Your task to perform on an android device: What's the weather today? Image 0: 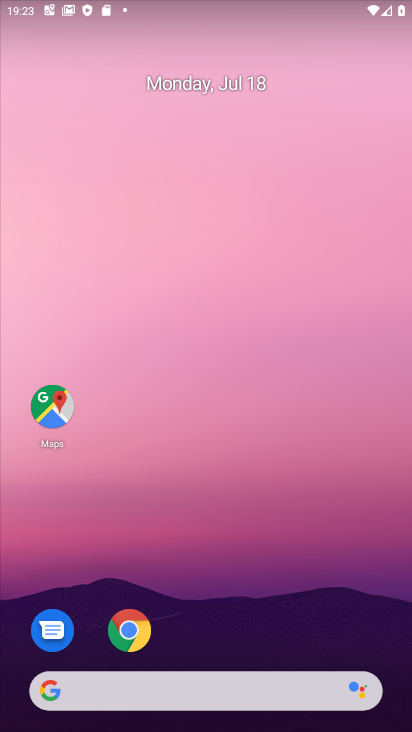
Step 0: drag from (229, 408) to (13, 15)
Your task to perform on an android device: What's the weather today? Image 1: 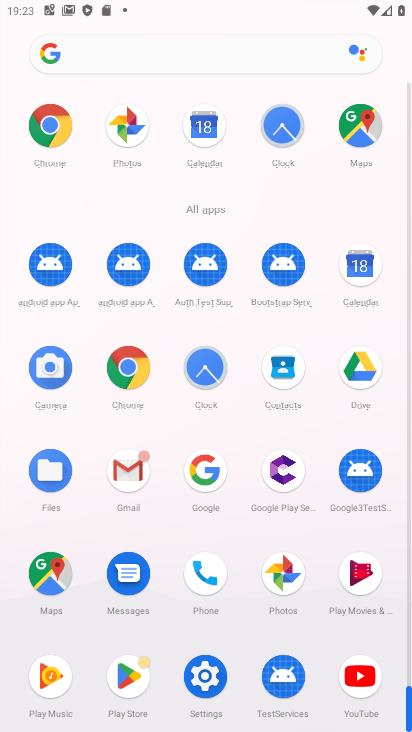
Step 1: click (201, 470)
Your task to perform on an android device: What's the weather today? Image 2: 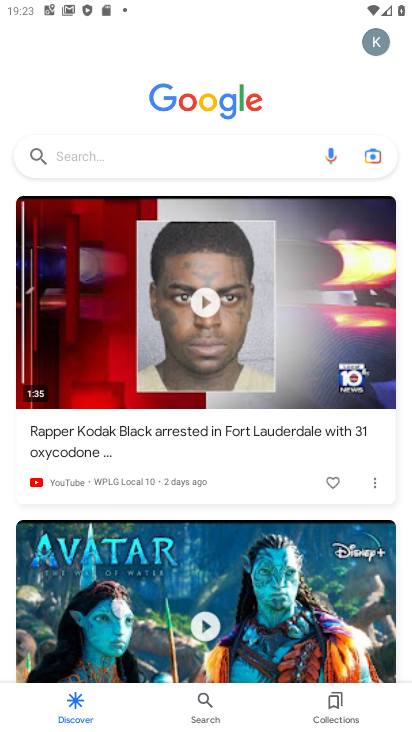
Step 2: click (91, 154)
Your task to perform on an android device: What's the weather today? Image 3: 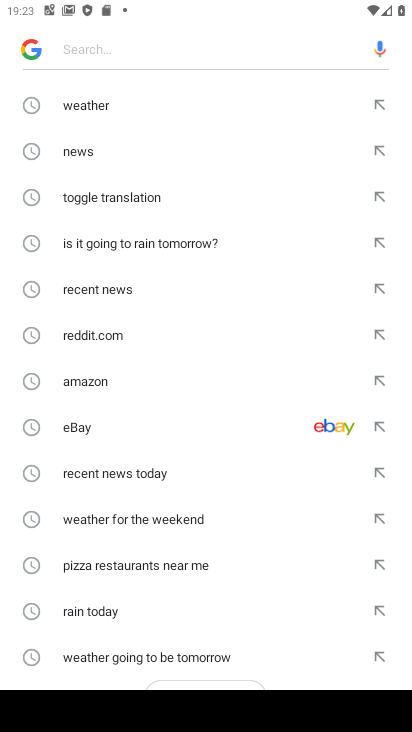
Step 3: click (67, 101)
Your task to perform on an android device: What's the weather today? Image 4: 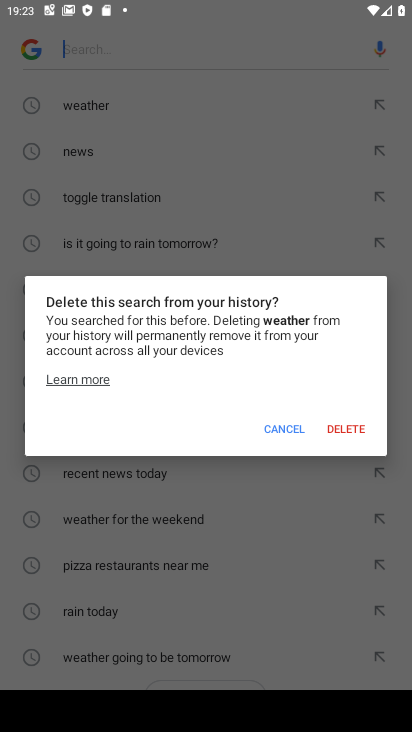
Step 4: click (261, 427)
Your task to perform on an android device: What's the weather today? Image 5: 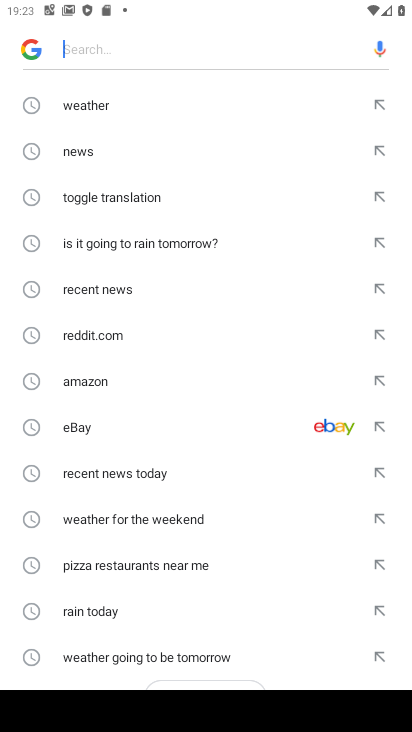
Step 5: click (81, 90)
Your task to perform on an android device: What's the weather today? Image 6: 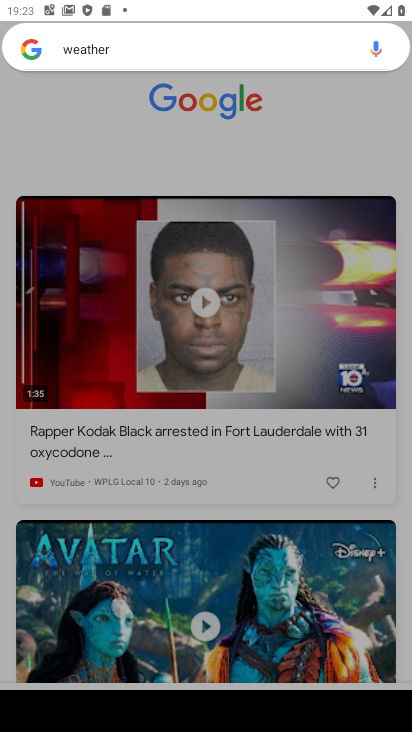
Step 6: click (82, 108)
Your task to perform on an android device: What's the weather today? Image 7: 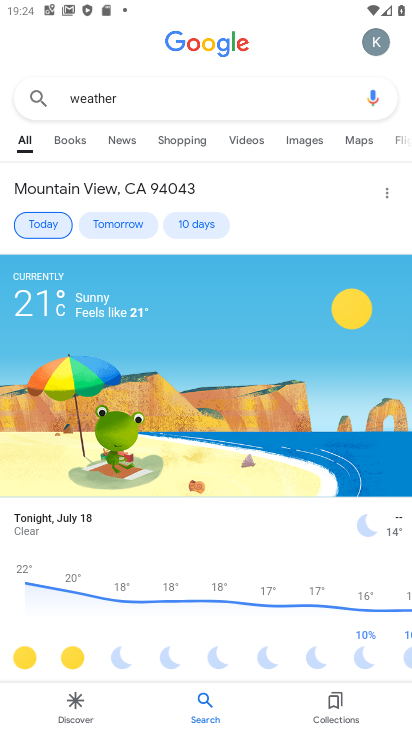
Step 7: task complete